Your task to perform on an android device: turn off improve location accuracy Image 0: 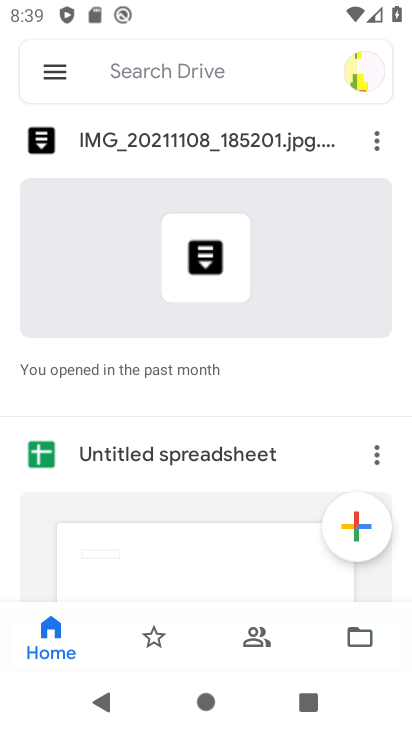
Step 0: press home button
Your task to perform on an android device: turn off improve location accuracy Image 1: 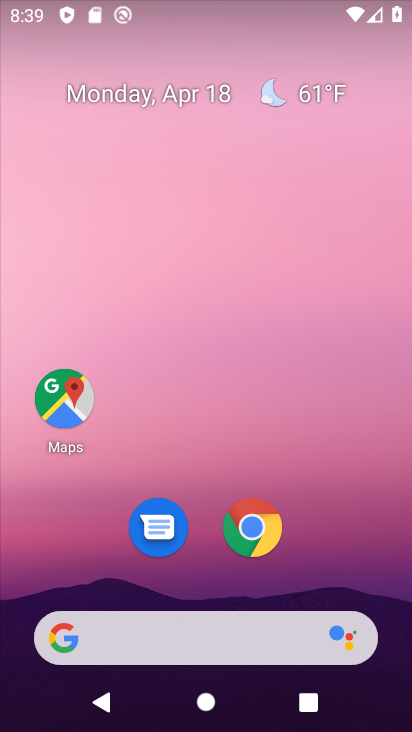
Step 1: drag from (352, 562) to (365, 0)
Your task to perform on an android device: turn off improve location accuracy Image 2: 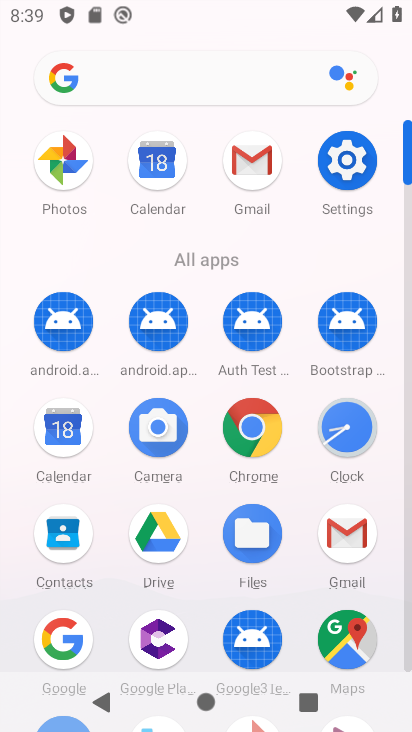
Step 2: click (346, 163)
Your task to perform on an android device: turn off improve location accuracy Image 3: 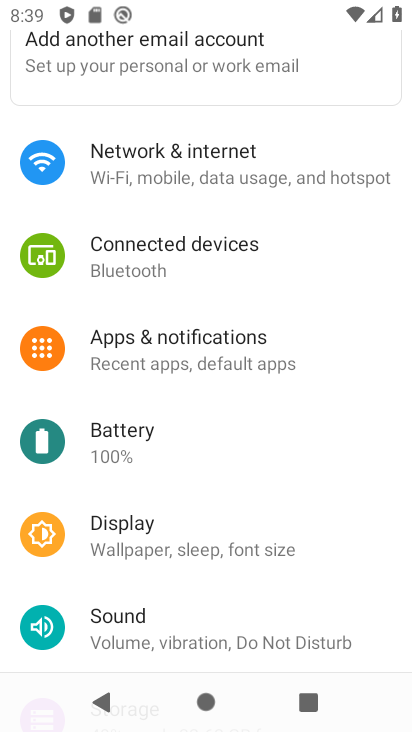
Step 3: drag from (346, 582) to (350, 134)
Your task to perform on an android device: turn off improve location accuracy Image 4: 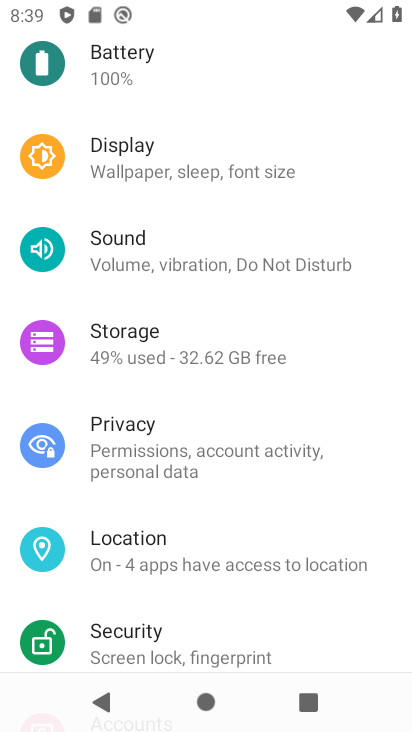
Step 4: click (128, 548)
Your task to perform on an android device: turn off improve location accuracy Image 5: 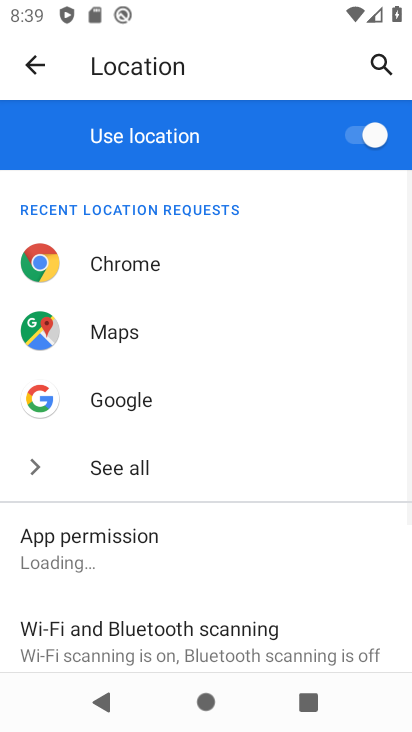
Step 5: drag from (225, 567) to (226, 239)
Your task to perform on an android device: turn off improve location accuracy Image 6: 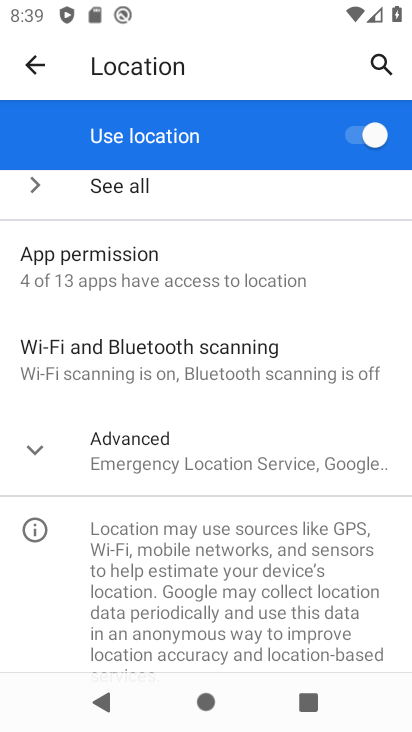
Step 6: click (26, 458)
Your task to perform on an android device: turn off improve location accuracy Image 7: 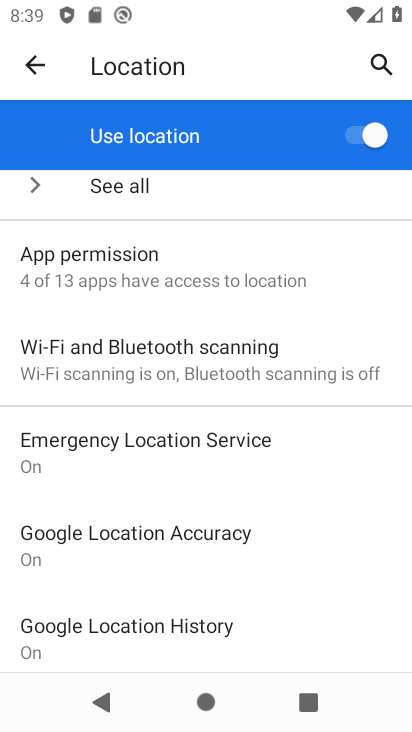
Step 7: click (64, 543)
Your task to perform on an android device: turn off improve location accuracy Image 8: 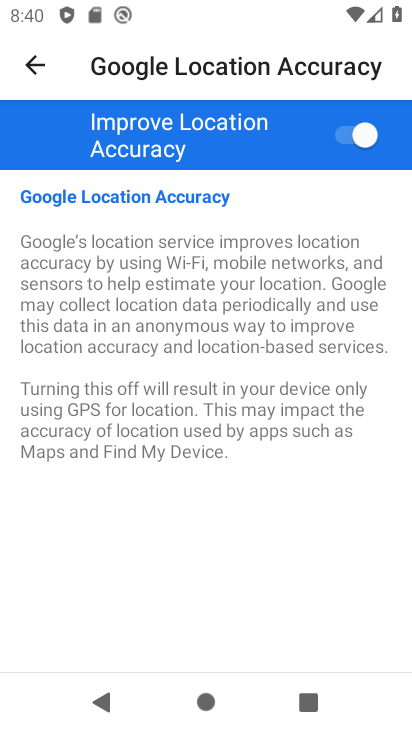
Step 8: click (354, 141)
Your task to perform on an android device: turn off improve location accuracy Image 9: 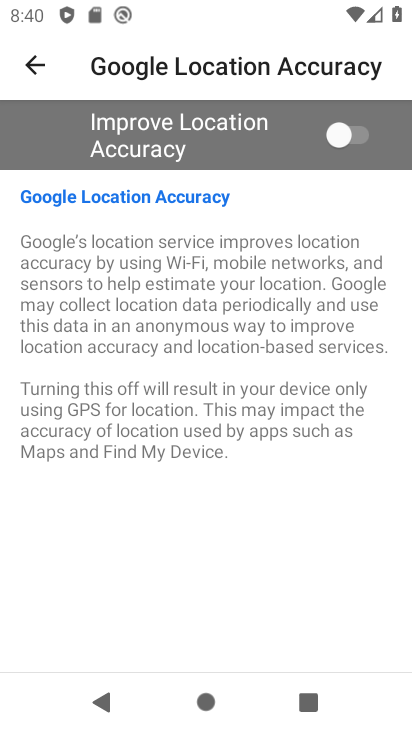
Step 9: task complete